Your task to perform on an android device: delete the emails in spam in the gmail app Image 0: 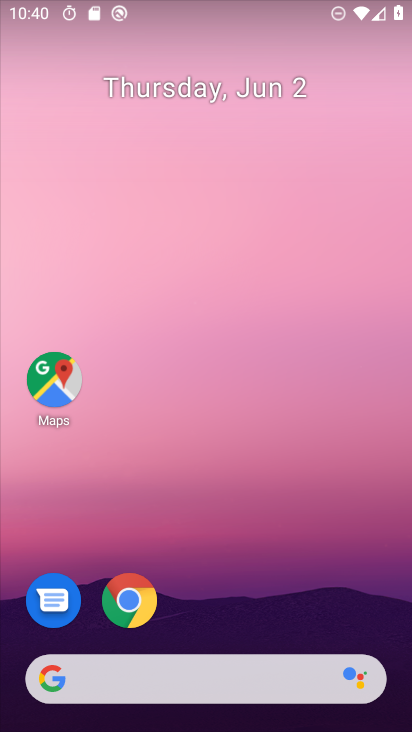
Step 0: drag from (258, 579) to (301, 86)
Your task to perform on an android device: delete the emails in spam in the gmail app Image 1: 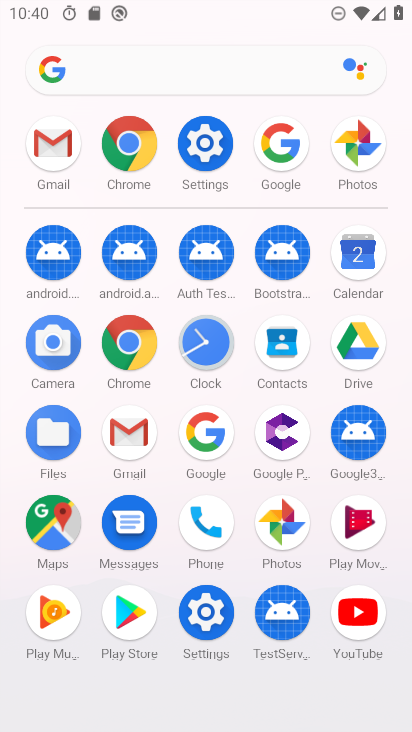
Step 1: click (125, 435)
Your task to perform on an android device: delete the emails in spam in the gmail app Image 2: 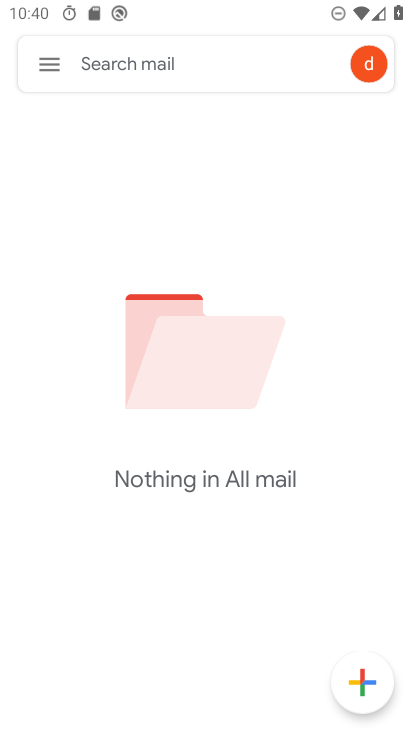
Step 2: click (51, 63)
Your task to perform on an android device: delete the emails in spam in the gmail app Image 3: 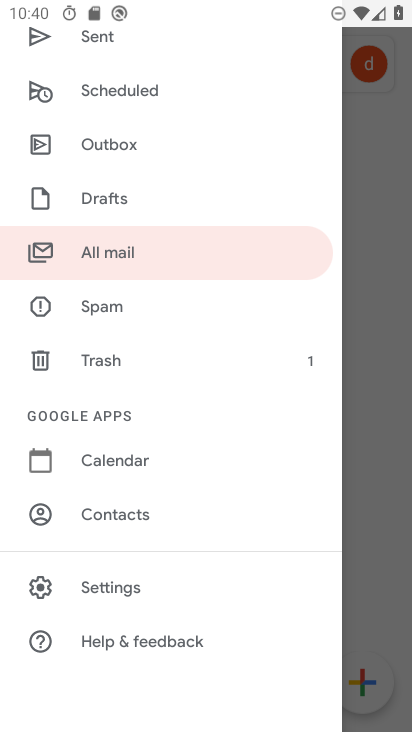
Step 3: click (105, 301)
Your task to perform on an android device: delete the emails in spam in the gmail app Image 4: 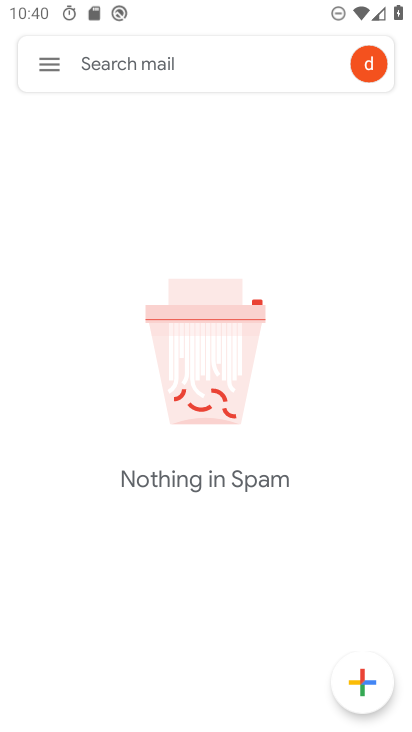
Step 4: task complete